Your task to perform on an android device: What is the news today? Image 0: 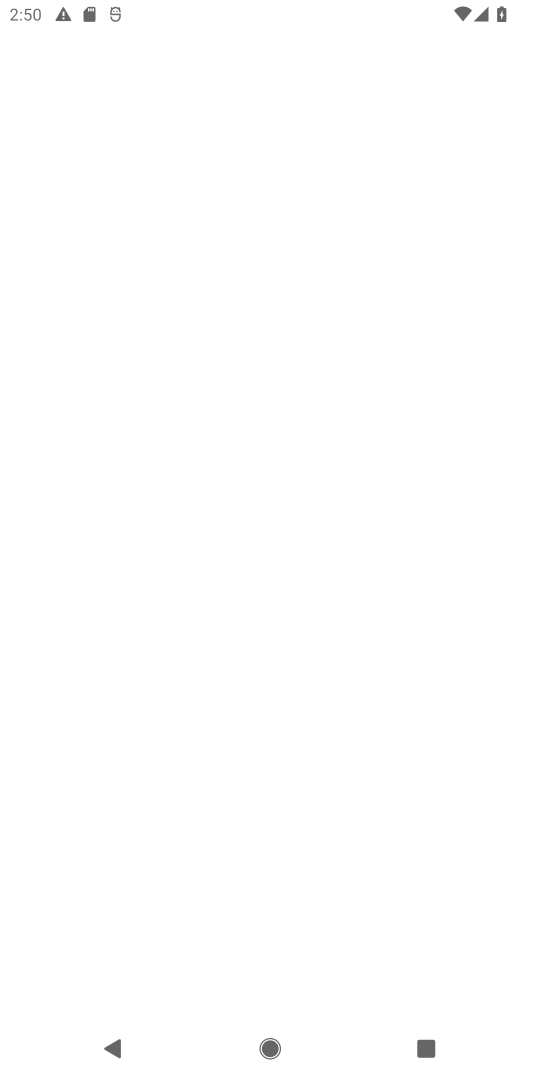
Step 0: press back button
Your task to perform on an android device: What is the news today? Image 1: 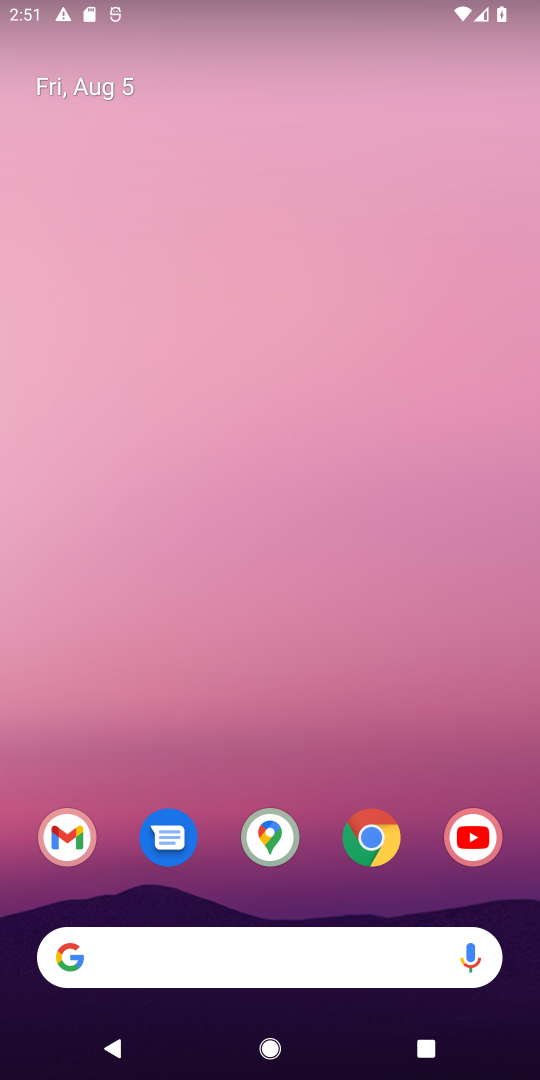
Step 1: drag from (258, 524) to (171, 12)
Your task to perform on an android device: What is the news today? Image 2: 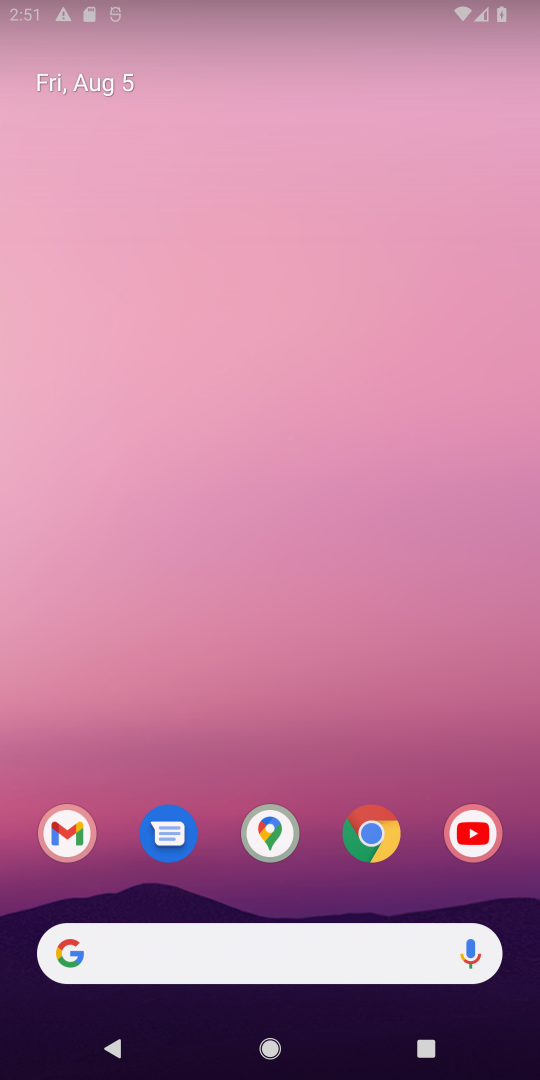
Step 2: drag from (233, 484) to (223, 213)
Your task to perform on an android device: What is the news today? Image 3: 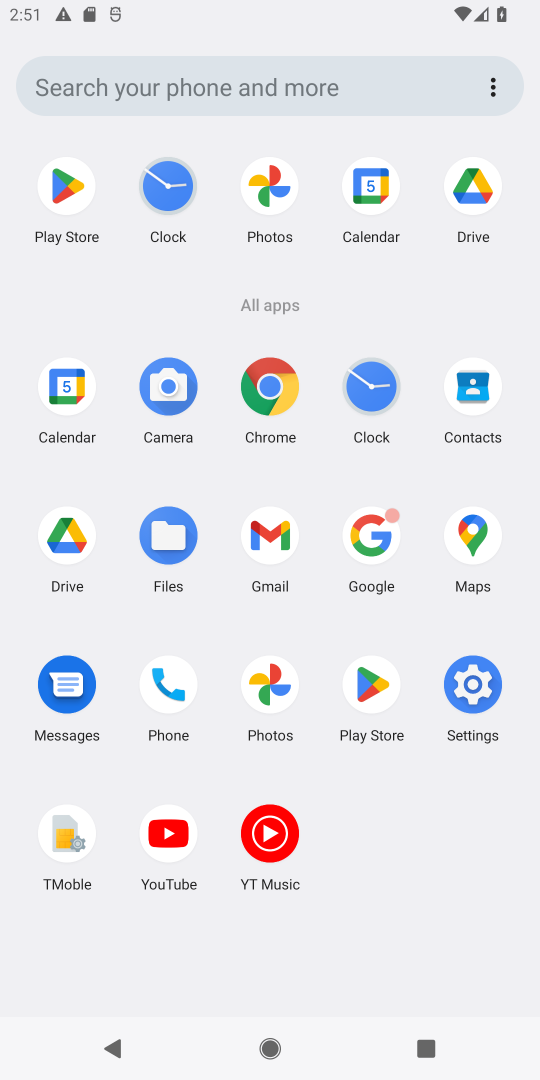
Step 3: drag from (295, 729) to (281, 110)
Your task to perform on an android device: What is the news today? Image 4: 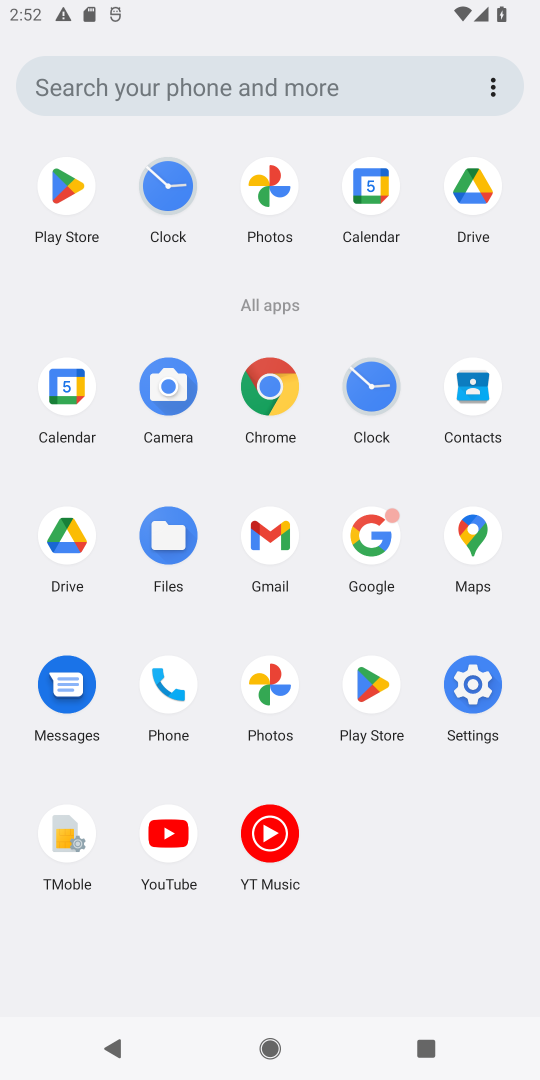
Step 4: click (261, 386)
Your task to perform on an android device: What is the news today? Image 5: 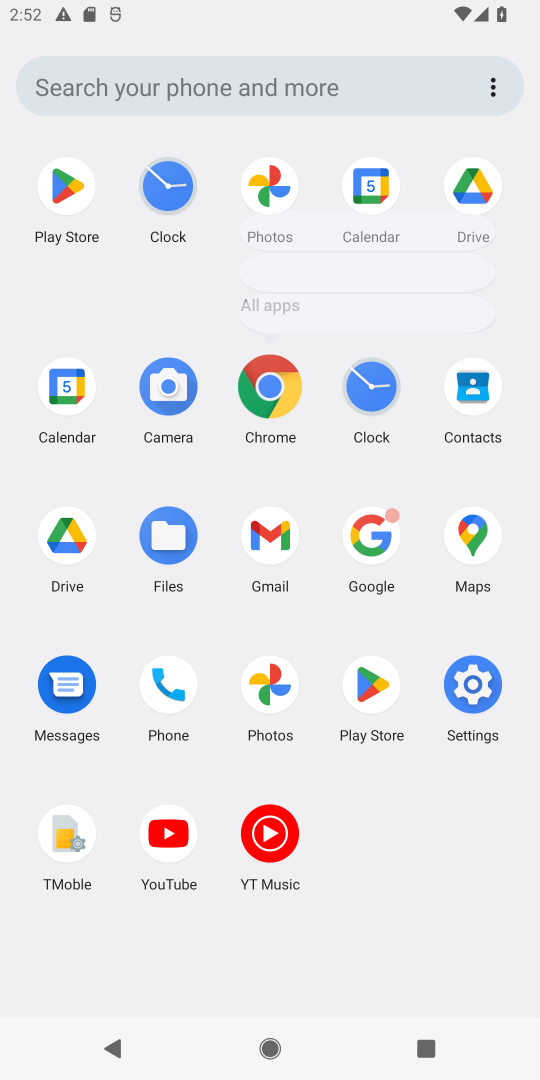
Step 5: click (263, 387)
Your task to perform on an android device: What is the news today? Image 6: 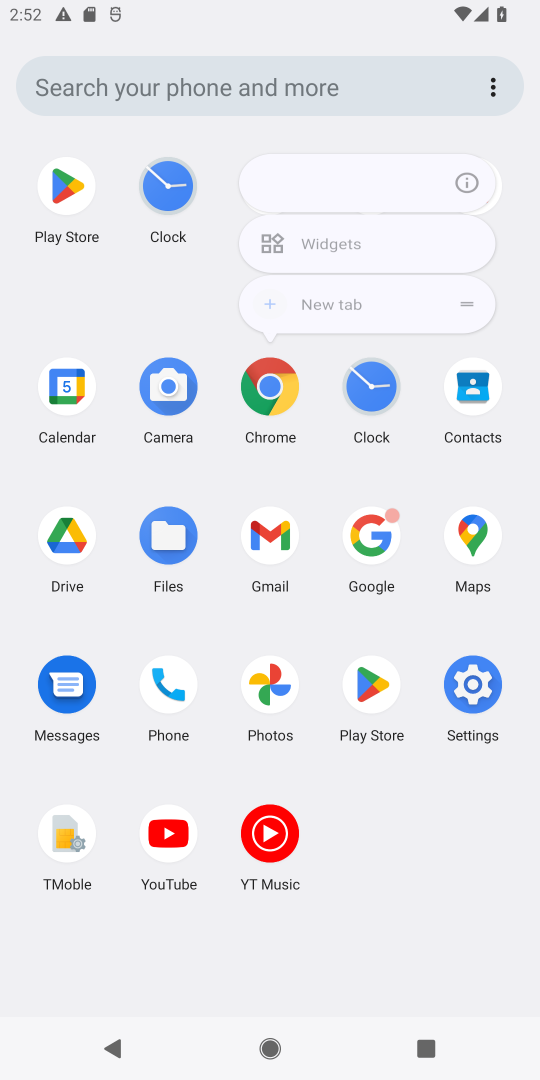
Step 6: click (263, 387)
Your task to perform on an android device: What is the news today? Image 7: 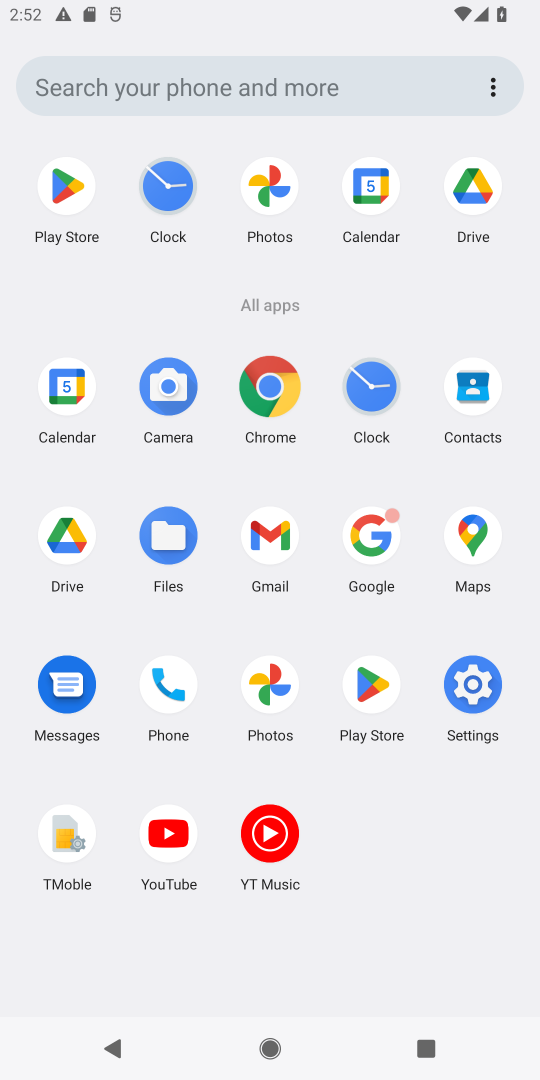
Step 7: click (263, 387)
Your task to perform on an android device: What is the news today? Image 8: 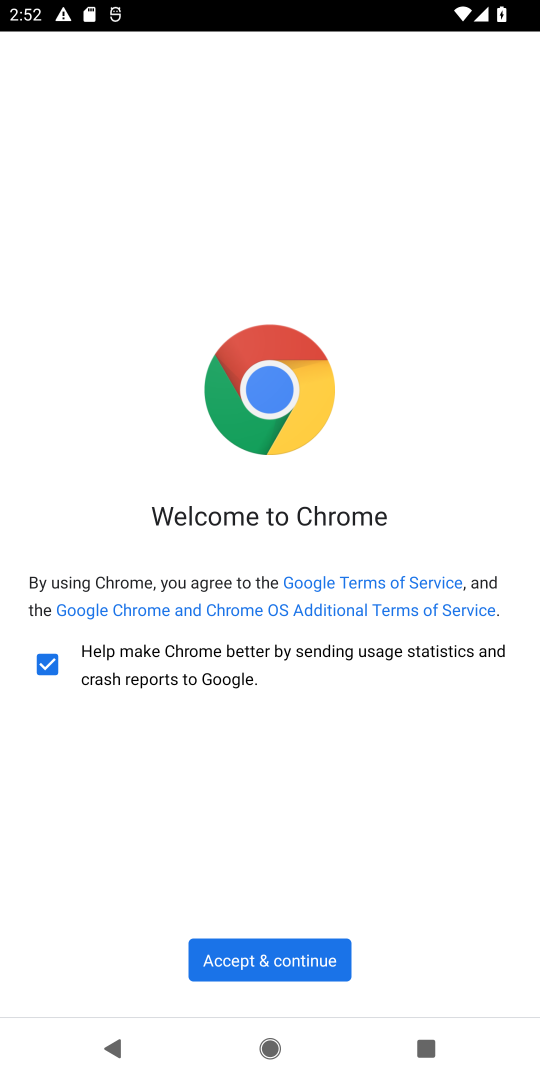
Step 8: click (312, 948)
Your task to perform on an android device: What is the news today? Image 9: 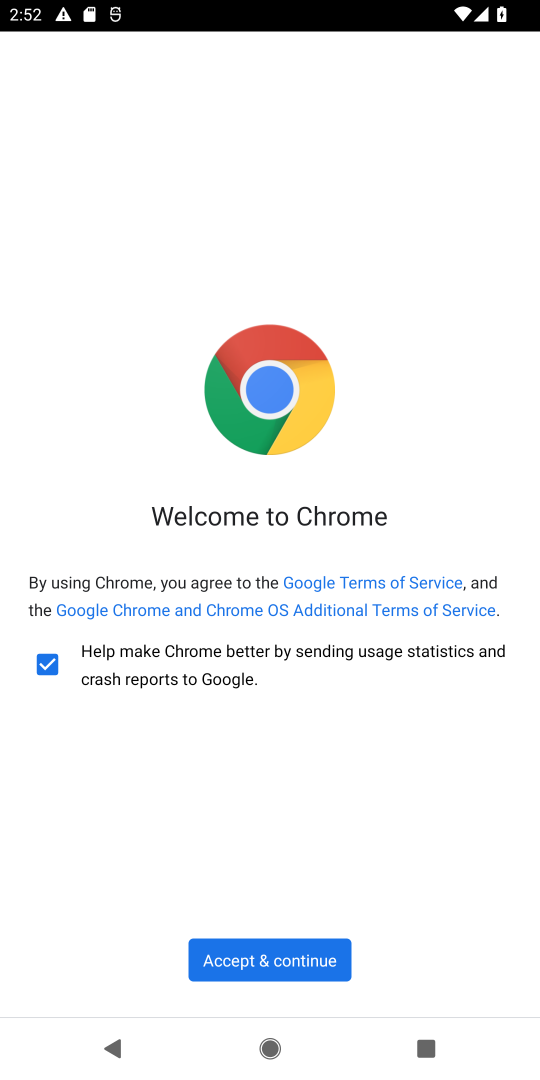
Step 9: click (316, 952)
Your task to perform on an android device: What is the news today? Image 10: 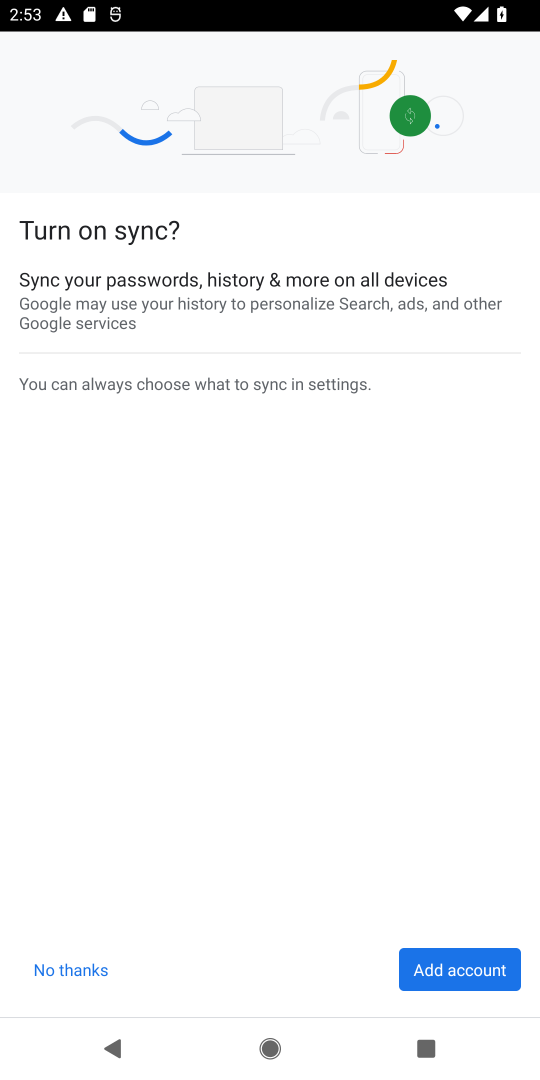
Step 10: click (59, 974)
Your task to perform on an android device: What is the news today? Image 11: 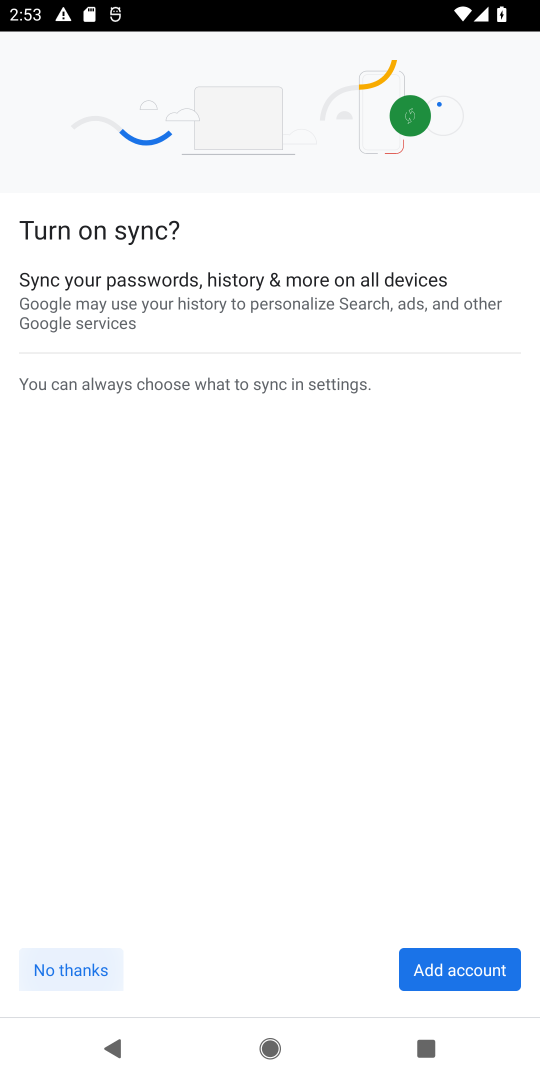
Step 11: click (68, 972)
Your task to perform on an android device: What is the news today? Image 12: 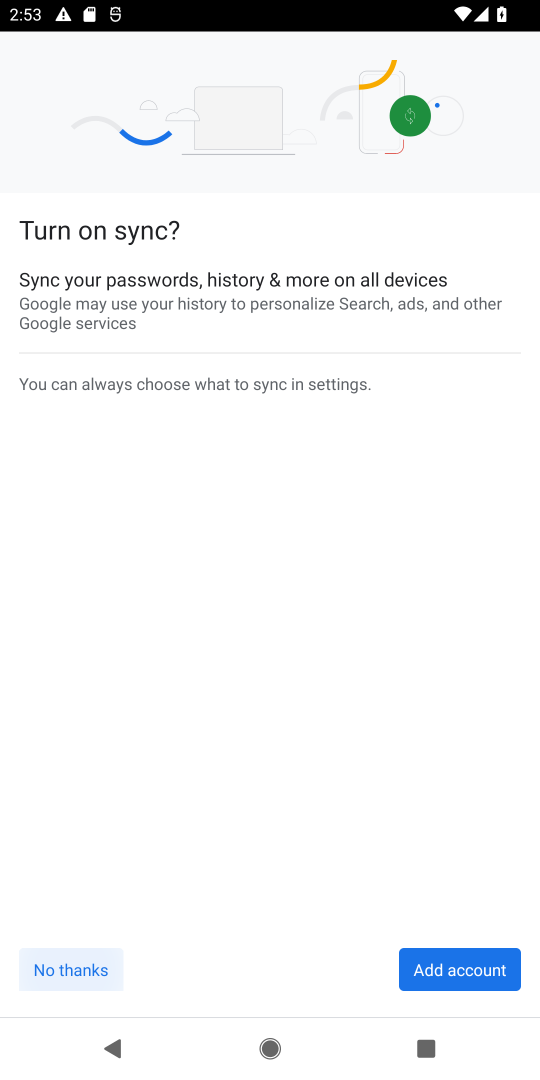
Step 12: click (74, 977)
Your task to perform on an android device: What is the news today? Image 13: 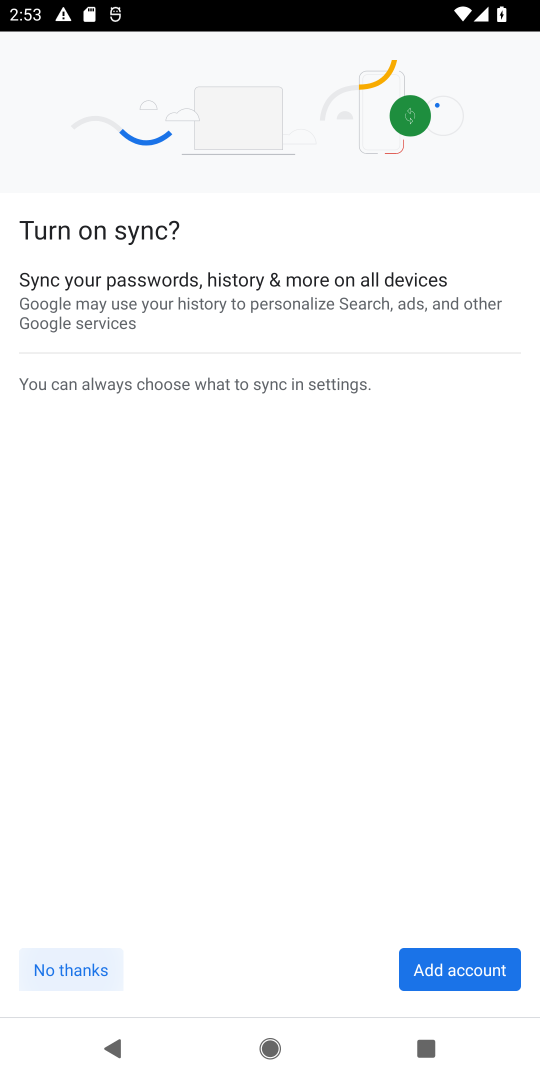
Step 13: click (75, 978)
Your task to perform on an android device: What is the news today? Image 14: 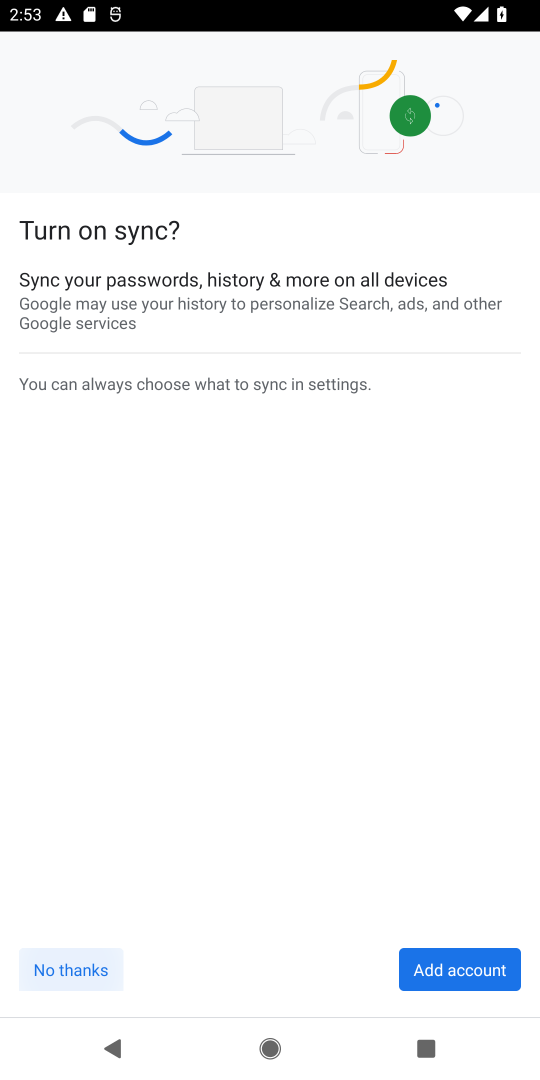
Step 14: click (83, 985)
Your task to perform on an android device: What is the news today? Image 15: 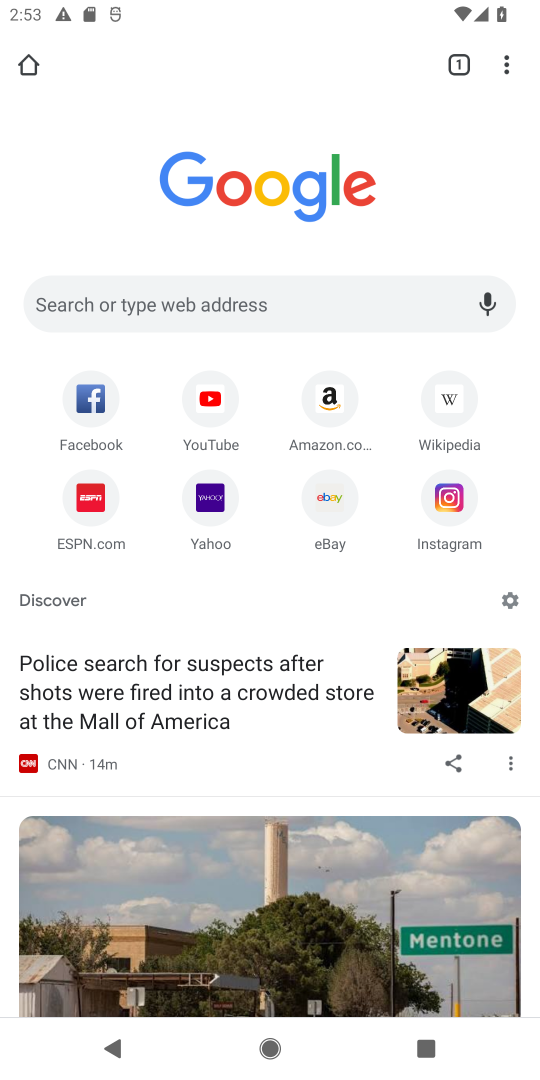
Step 15: task complete